Your task to perform on an android device: search for starred emails in the gmail app Image 0: 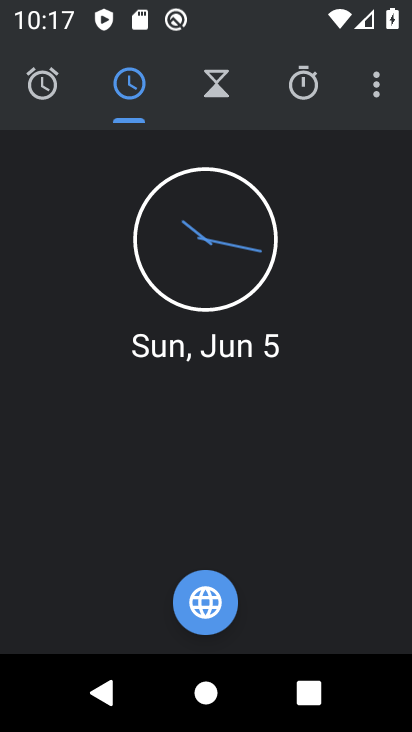
Step 0: press back button
Your task to perform on an android device: search for starred emails in the gmail app Image 1: 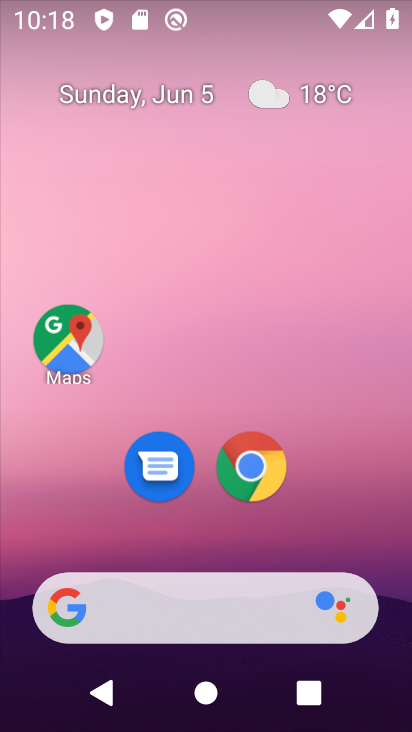
Step 1: drag from (325, 505) to (226, 96)
Your task to perform on an android device: search for starred emails in the gmail app Image 2: 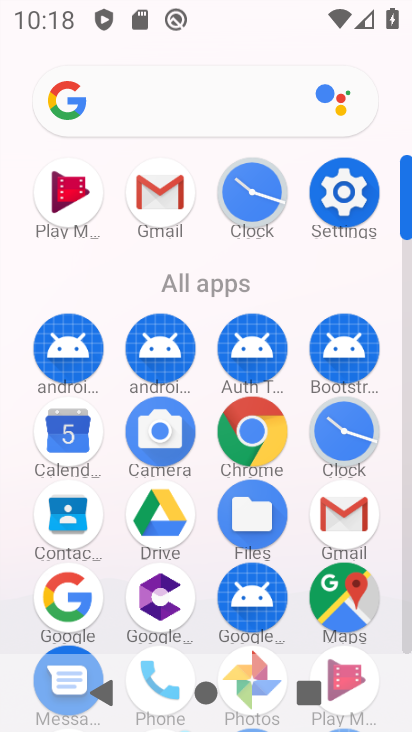
Step 2: click (159, 194)
Your task to perform on an android device: search for starred emails in the gmail app Image 3: 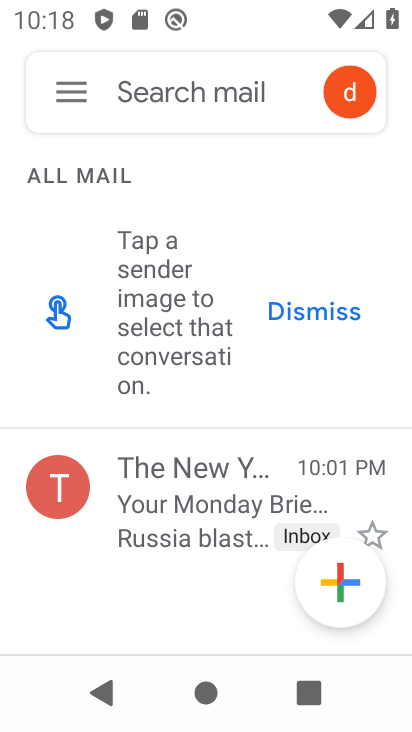
Step 3: drag from (194, 594) to (208, 495)
Your task to perform on an android device: search for starred emails in the gmail app Image 4: 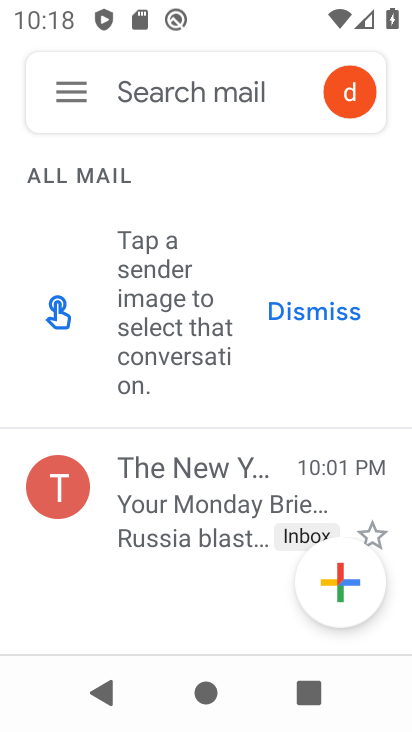
Step 4: click (67, 99)
Your task to perform on an android device: search for starred emails in the gmail app Image 5: 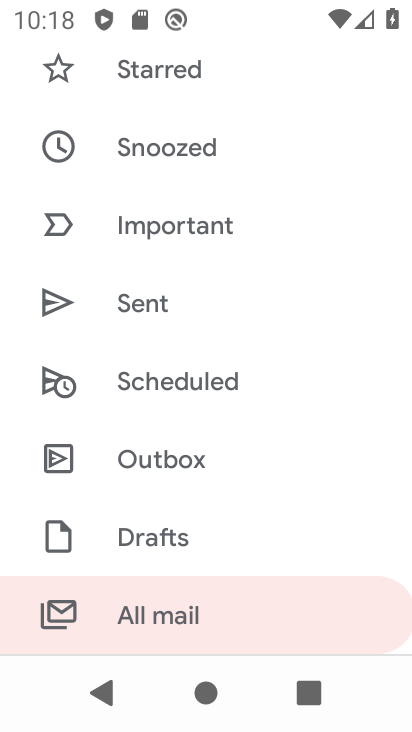
Step 5: drag from (206, 116) to (238, 403)
Your task to perform on an android device: search for starred emails in the gmail app Image 6: 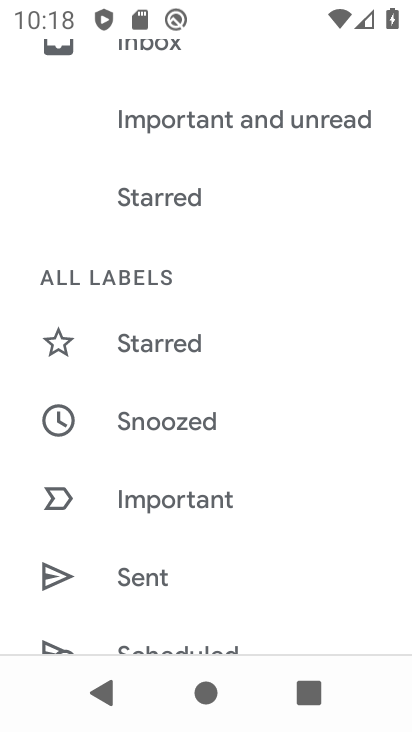
Step 6: click (191, 338)
Your task to perform on an android device: search for starred emails in the gmail app Image 7: 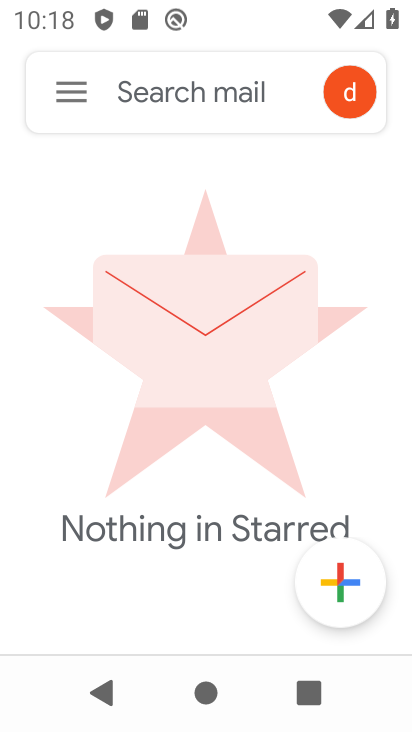
Step 7: task complete